Your task to perform on an android device: check google app version Image 0: 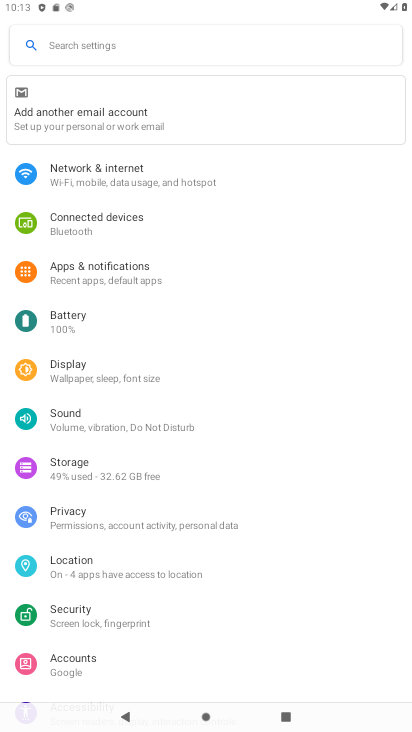
Step 0: press home button
Your task to perform on an android device: check google app version Image 1: 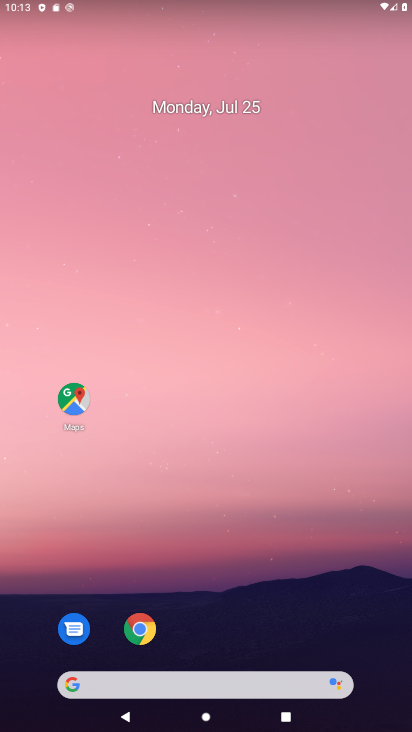
Step 1: drag from (241, 648) to (235, 10)
Your task to perform on an android device: check google app version Image 2: 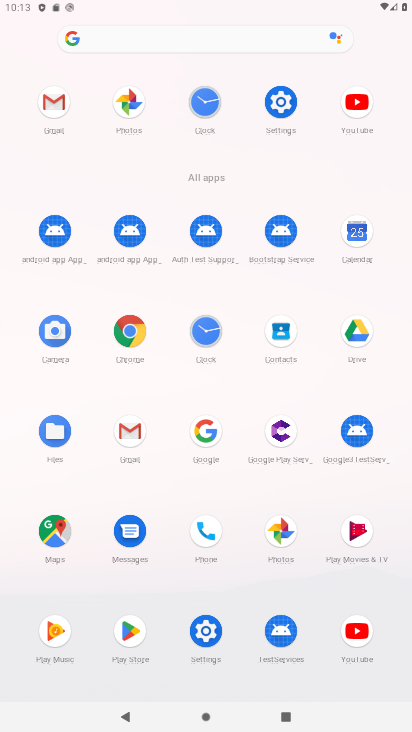
Step 2: click (208, 437)
Your task to perform on an android device: check google app version Image 3: 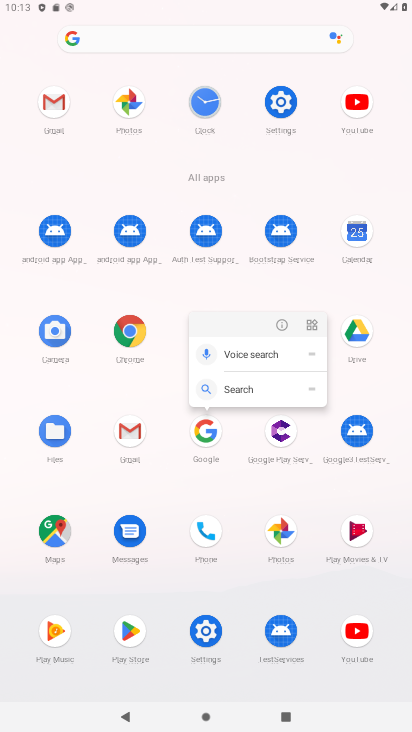
Step 3: click (278, 328)
Your task to perform on an android device: check google app version Image 4: 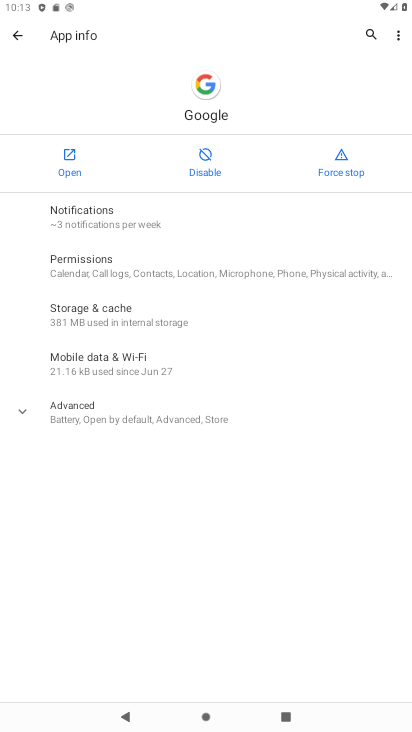
Step 4: click (17, 417)
Your task to perform on an android device: check google app version Image 5: 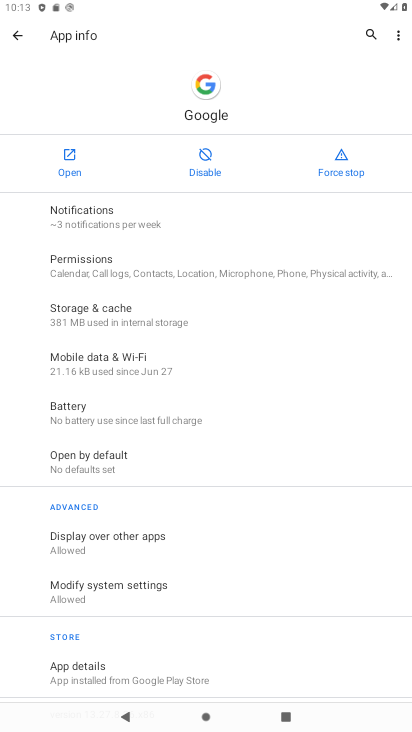
Step 5: task complete